Your task to perform on an android device: remove spam from my inbox in the gmail app Image 0: 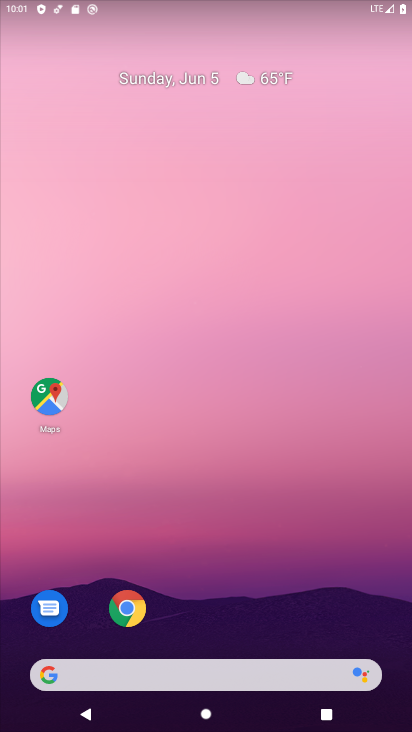
Step 0: click (132, 559)
Your task to perform on an android device: remove spam from my inbox in the gmail app Image 1: 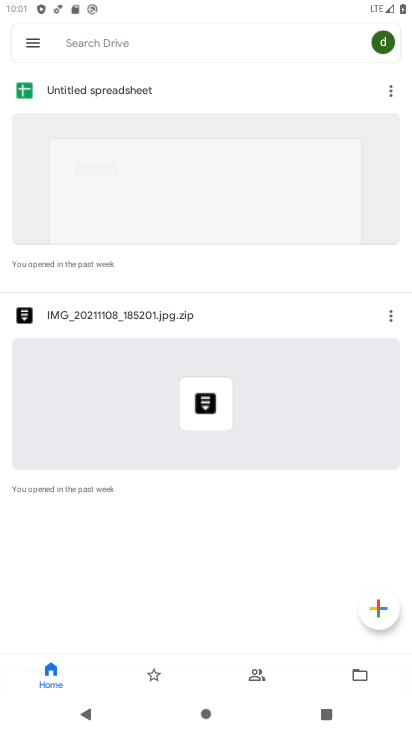
Step 1: press home button
Your task to perform on an android device: remove spam from my inbox in the gmail app Image 2: 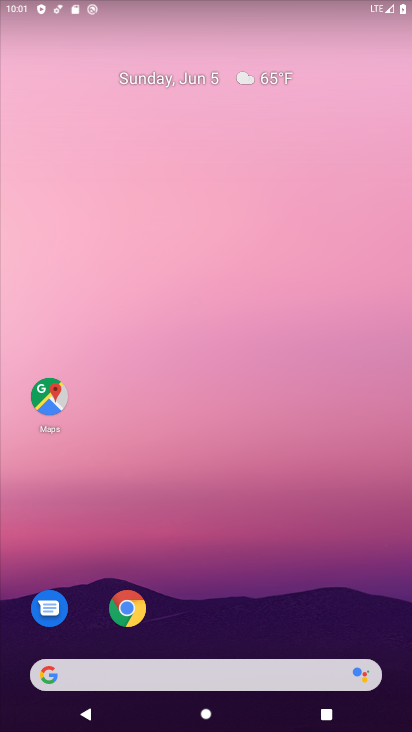
Step 2: drag from (200, 591) to (201, 190)
Your task to perform on an android device: remove spam from my inbox in the gmail app Image 3: 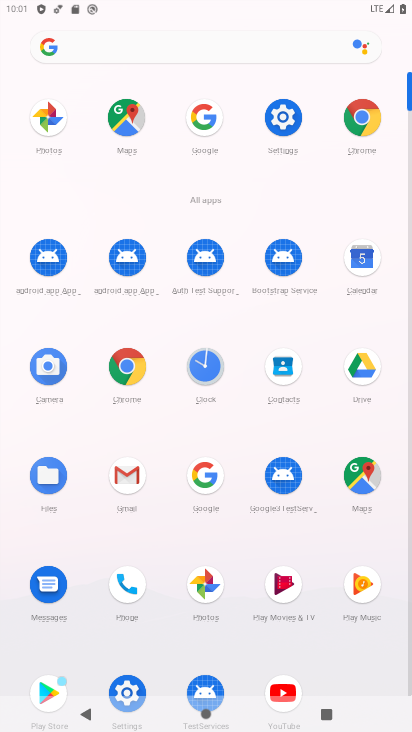
Step 3: click (132, 484)
Your task to perform on an android device: remove spam from my inbox in the gmail app Image 4: 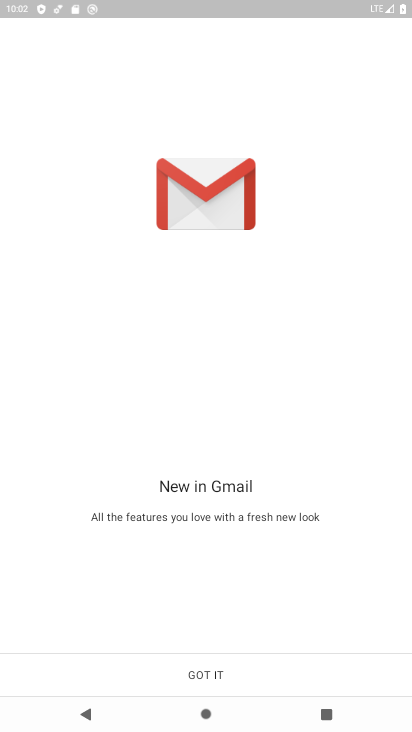
Step 4: click (165, 667)
Your task to perform on an android device: remove spam from my inbox in the gmail app Image 5: 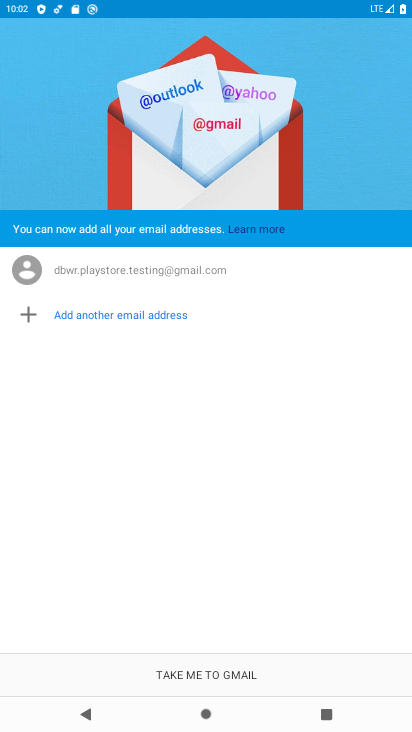
Step 5: click (165, 667)
Your task to perform on an android device: remove spam from my inbox in the gmail app Image 6: 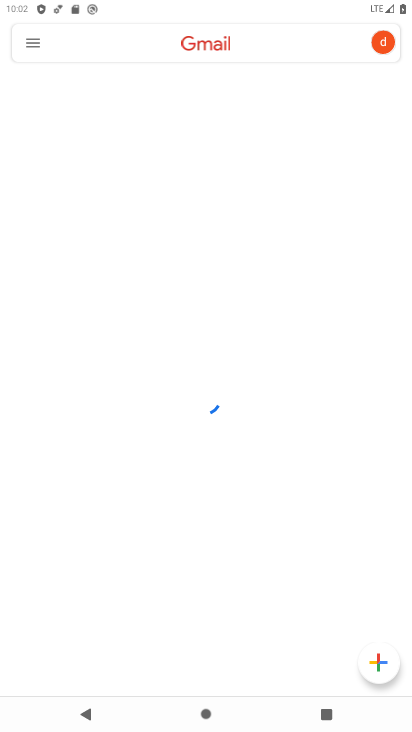
Step 6: click (30, 38)
Your task to perform on an android device: remove spam from my inbox in the gmail app Image 7: 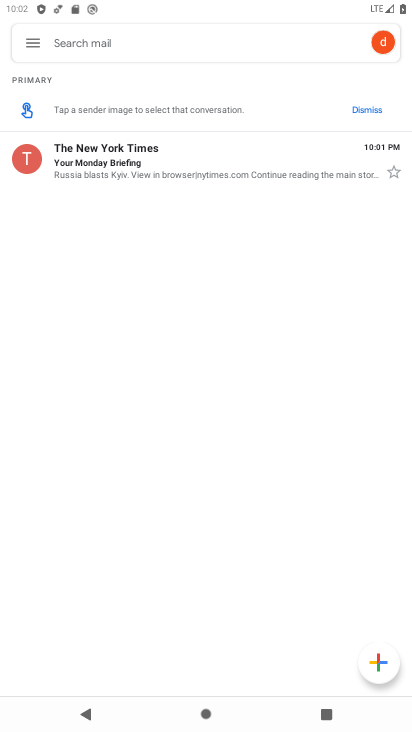
Step 7: click (27, 43)
Your task to perform on an android device: remove spam from my inbox in the gmail app Image 8: 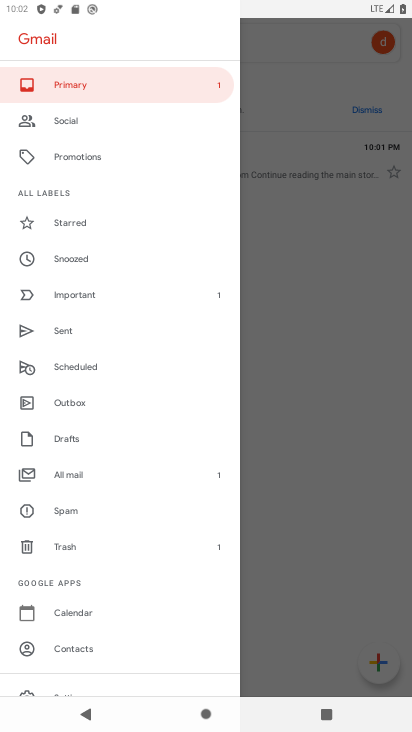
Step 8: click (42, 511)
Your task to perform on an android device: remove spam from my inbox in the gmail app Image 9: 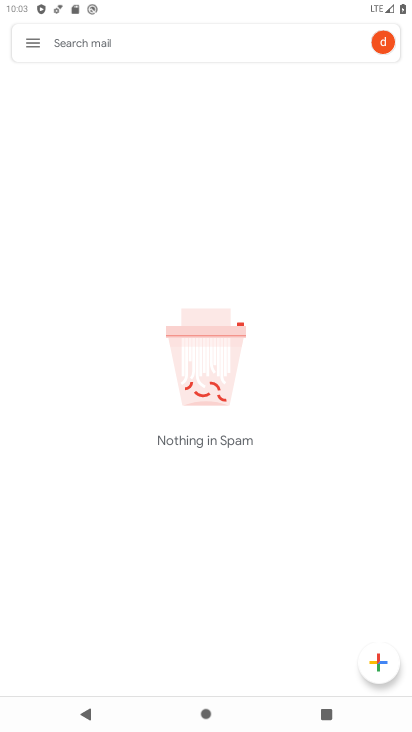
Step 9: task complete